Your task to perform on an android device: Show me popular games on the Play Store Image 0: 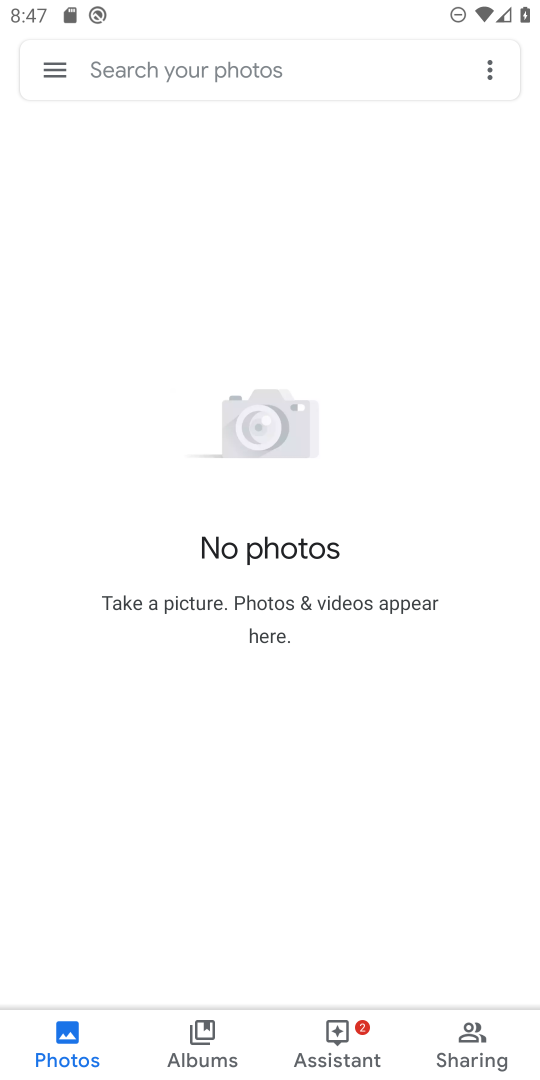
Step 0: press home button
Your task to perform on an android device: Show me popular games on the Play Store Image 1: 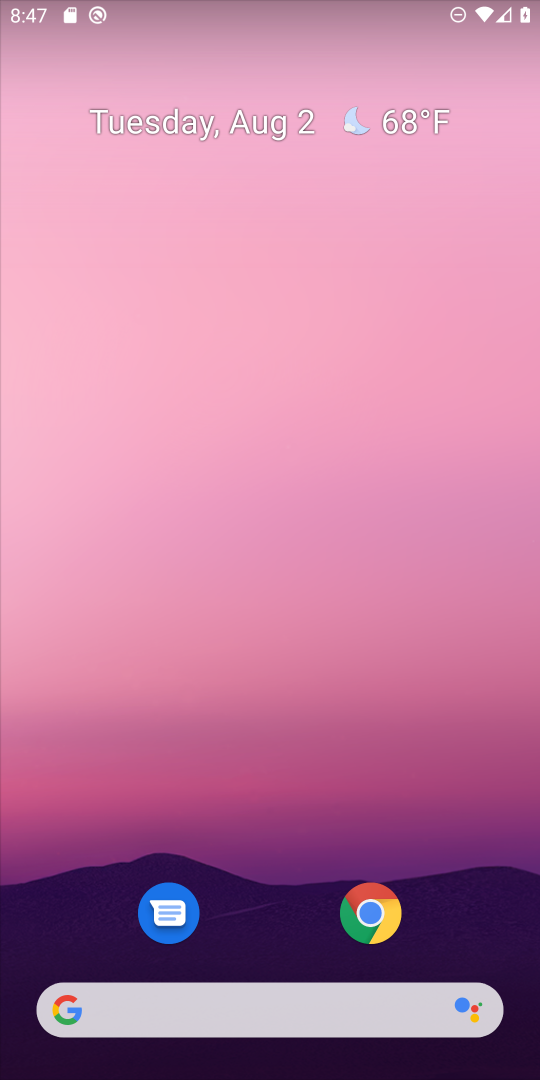
Step 1: drag from (330, 746) to (381, 15)
Your task to perform on an android device: Show me popular games on the Play Store Image 2: 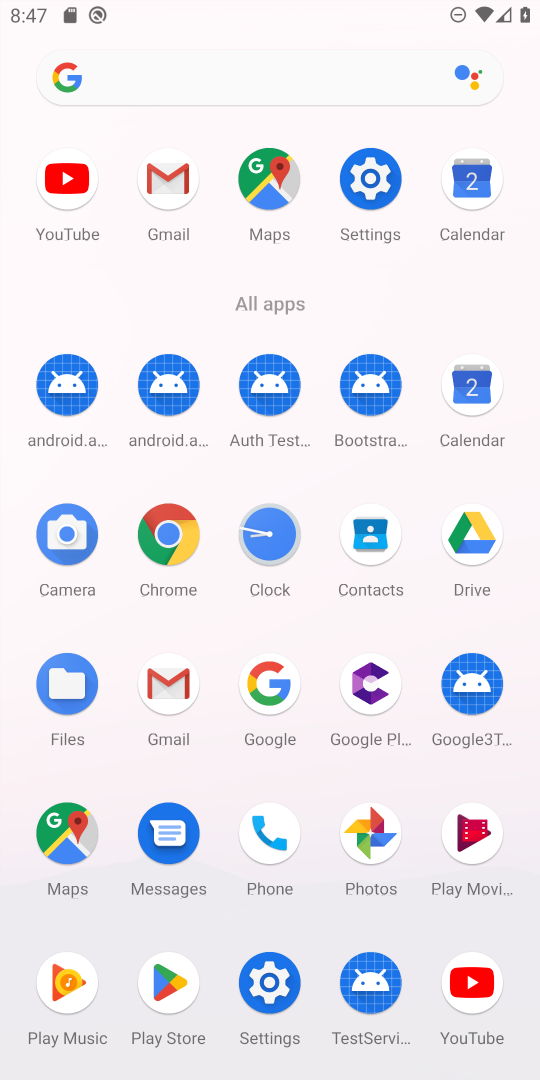
Step 2: click (164, 980)
Your task to perform on an android device: Show me popular games on the Play Store Image 3: 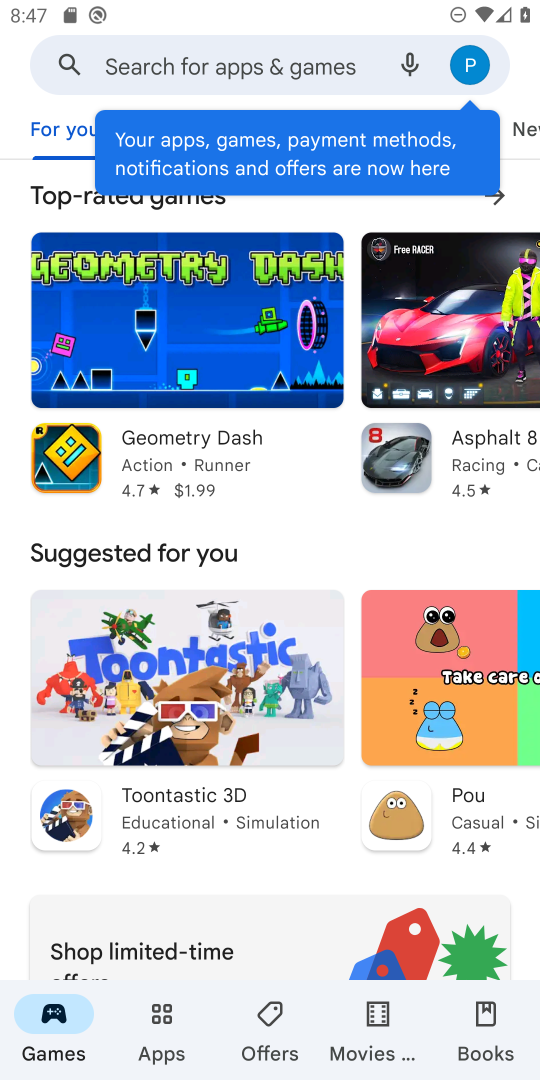
Step 3: click (164, 980)
Your task to perform on an android device: Show me popular games on the Play Store Image 4: 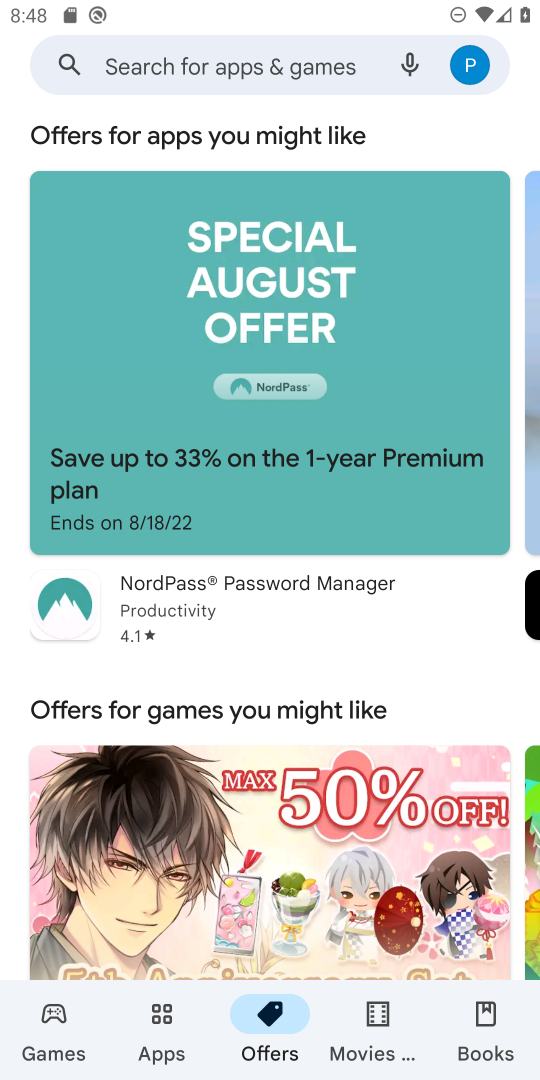
Step 4: click (60, 1034)
Your task to perform on an android device: Show me popular games on the Play Store Image 5: 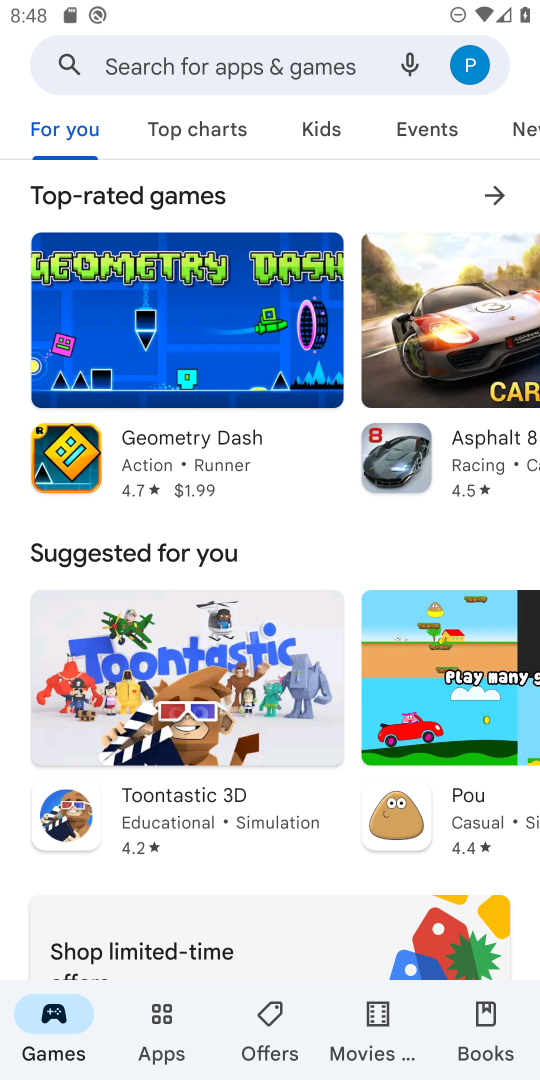
Step 5: task complete